Your task to perform on an android device: Is it going to rain today? Image 0: 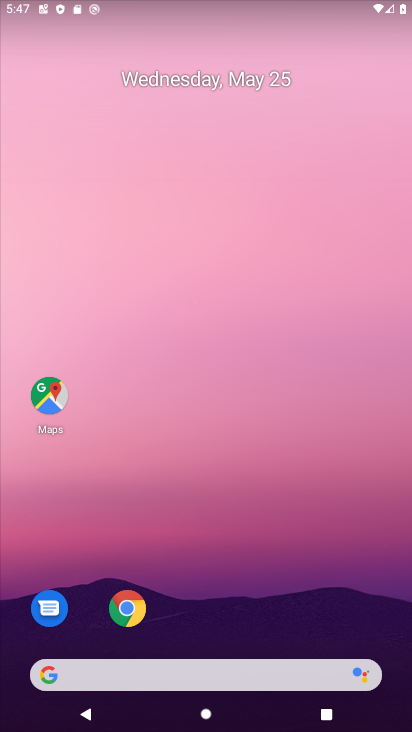
Step 0: click (169, 88)
Your task to perform on an android device: Is it going to rain today? Image 1: 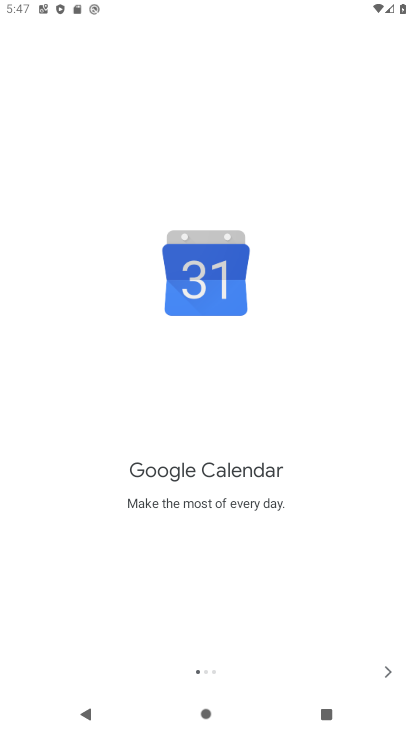
Step 1: press home button
Your task to perform on an android device: Is it going to rain today? Image 2: 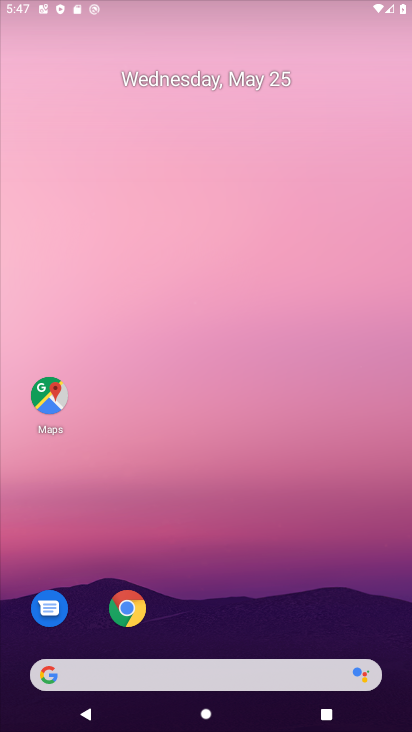
Step 2: drag from (203, 580) to (281, 127)
Your task to perform on an android device: Is it going to rain today? Image 3: 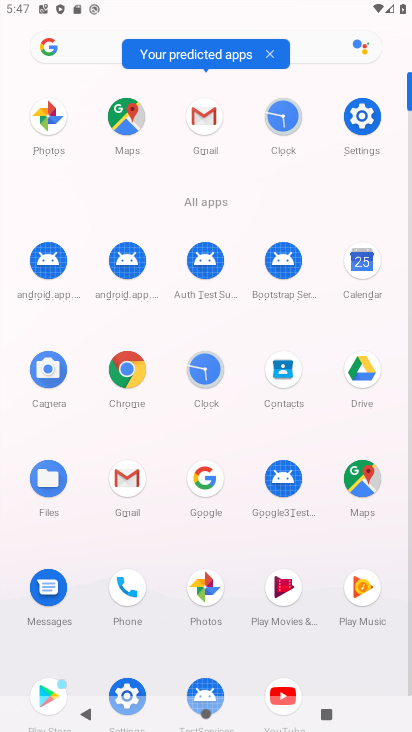
Step 3: click (195, 494)
Your task to perform on an android device: Is it going to rain today? Image 4: 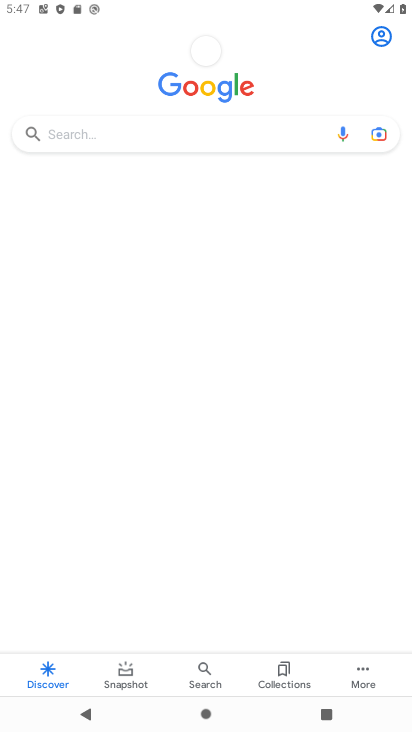
Step 4: click (164, 126)
Your task to perform on an android device: Is it going to rain today? Image 5: 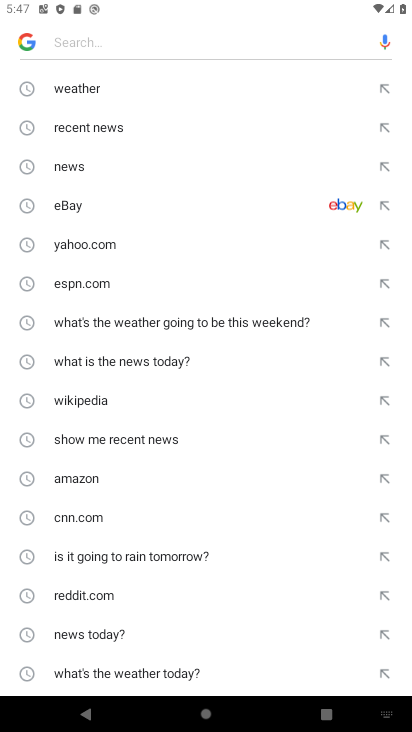
Step 5: click (96, 89)
Your task to perform on an android device: Is it going to rain today? Image 6: 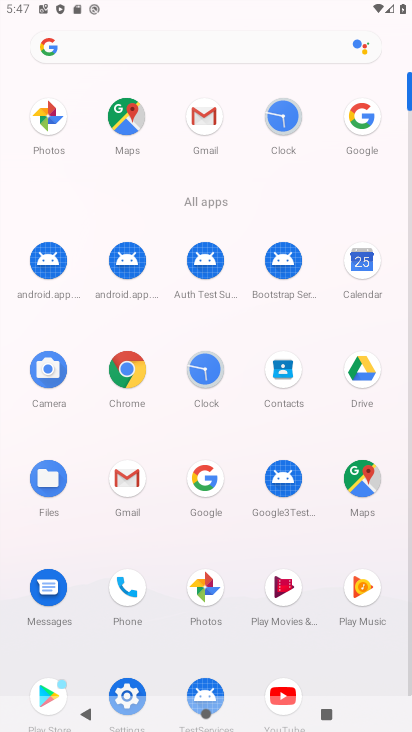
Step 6: click (359, 136)
Your task to perform on an android device: Is it going to rain today? Image 7: 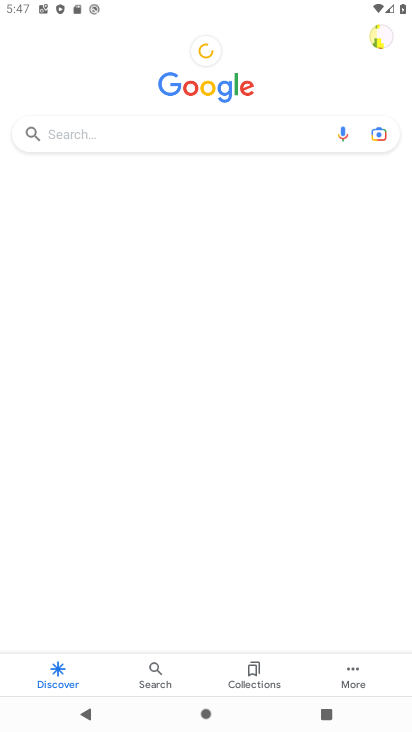
Step 7: click (111, 133)
Your task to perform on an android device: Is it going to rain today? Image 8: 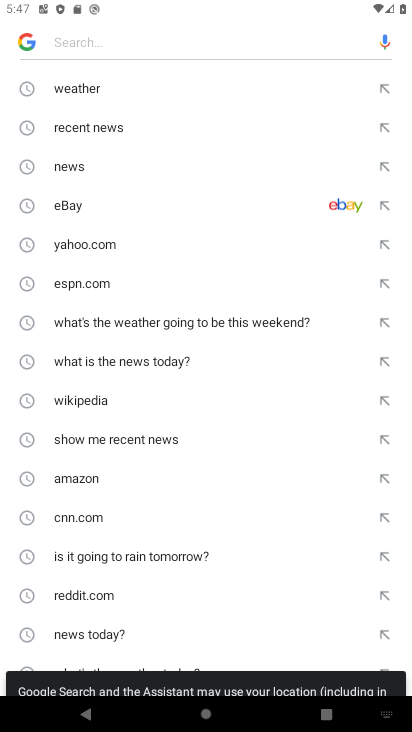
Step 8: click (92, 83)
Your task to perform on an android device: Is it going to rain today? Image 9: 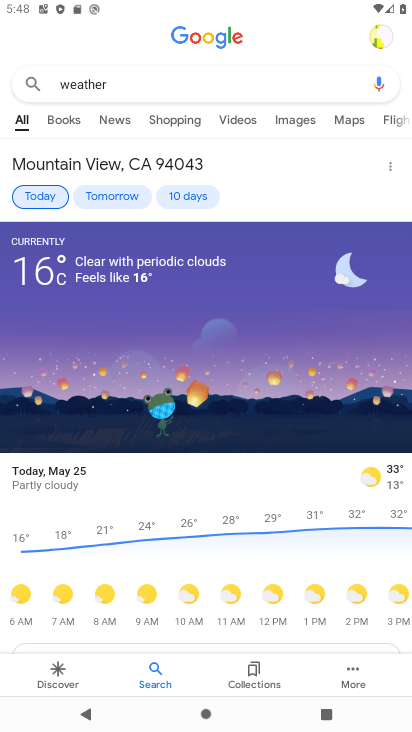
Step 9: task complete